Your task to perform on an android device: Open network settings Image 0: 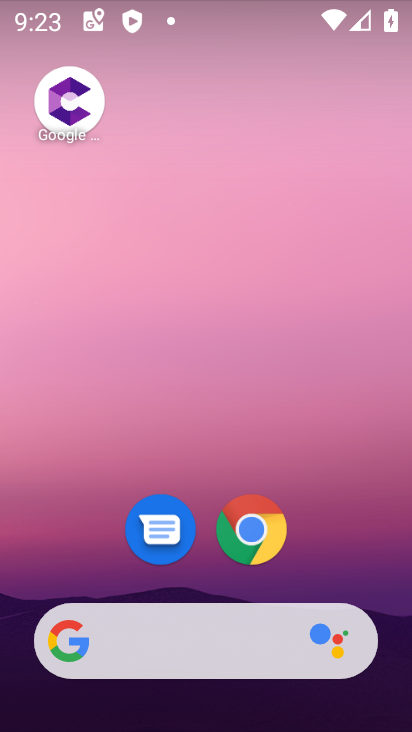
Step 0: drag from (334, 543) to (371, 50)
Your task to perform on an android device: Open network settings Image 1: 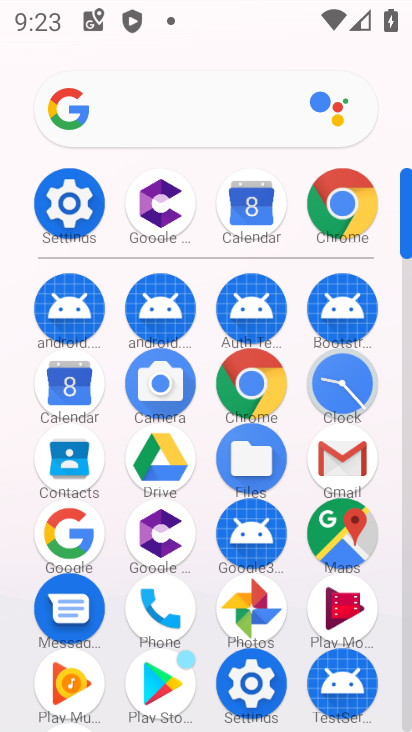
Step 1: click (64, 199)
Your task to perform on an android device: Open network settings Image 2: 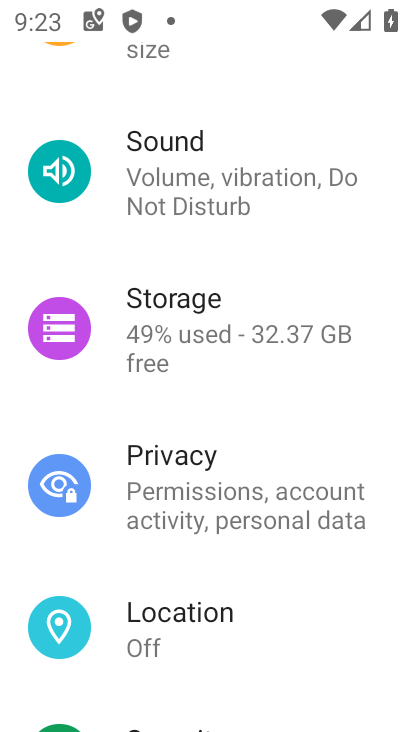
Step 2: drag from (297, 249) to (266, 660)
Your task to perform on an android device: Open network settings Image 3: 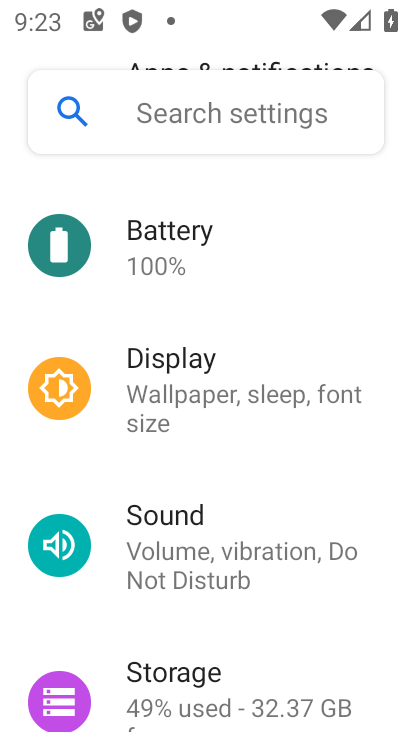
Step 3: drag from (286, 265) to (262, 590)
Your task to perform on an android device: Open network settings Image 4: 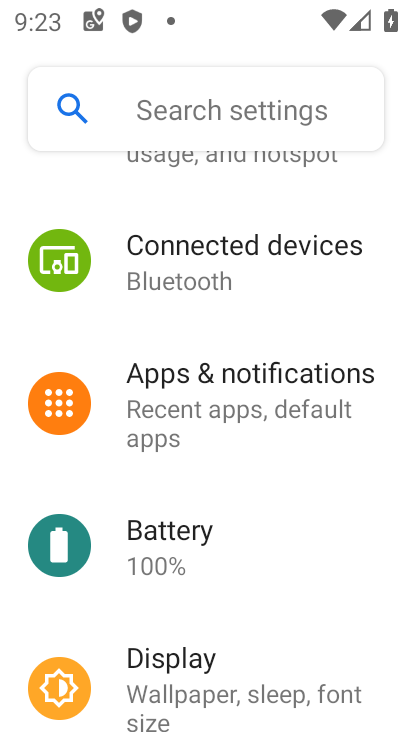
Step 4: drag from (288, 270) to (267, 638)
Your task to perform on an android device: Open network settings Image 5: 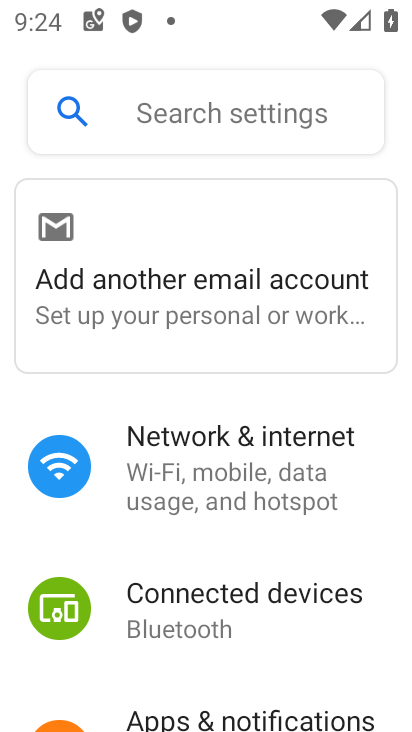
Step 5: drag from (277, 654) to (268, 386)
Your task to perform on an android device: Open network settings Image 6: 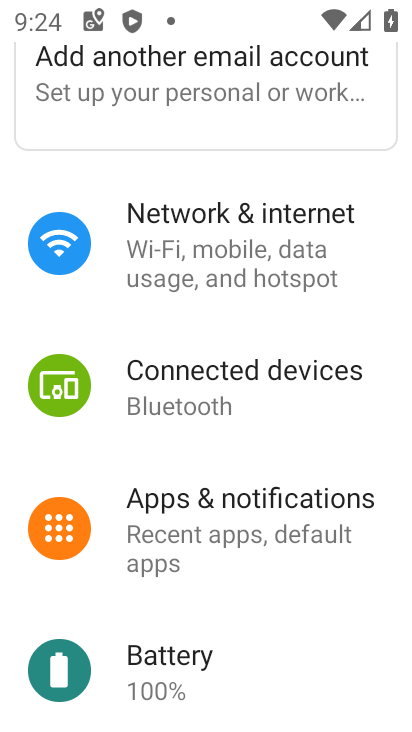
Step 6: drag from (286, 621) to (286, 330)
Your task to perform on an android device: Open network settings Image 7: 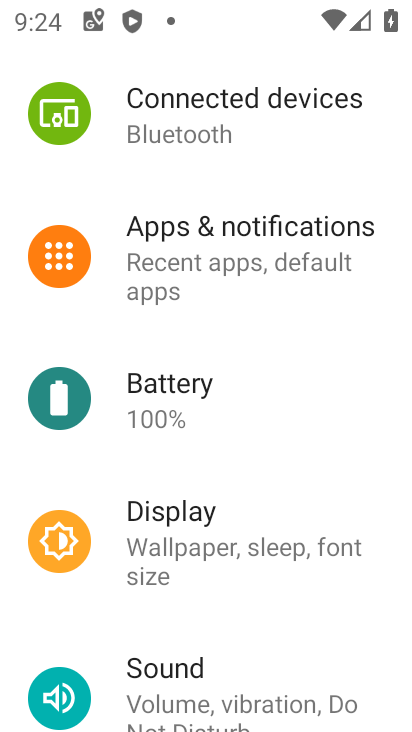
Step 7: drag from (281, 366) to (237, 643)
Your task to perform on an android device: Open network settings Image 8: 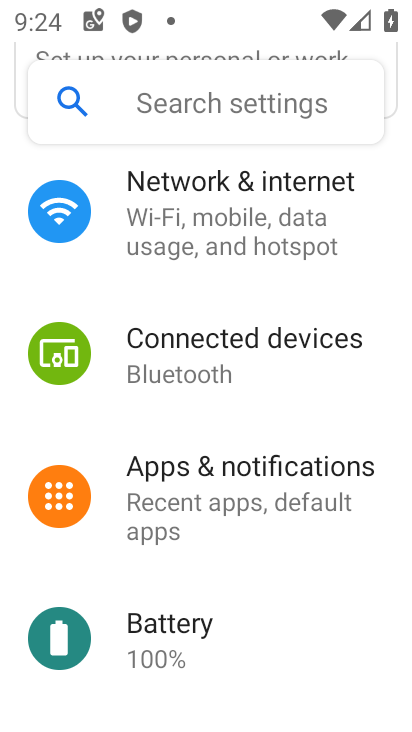
Step 8: click (237, 225)
Your task to perform on an android device: Open network settings Image 9: 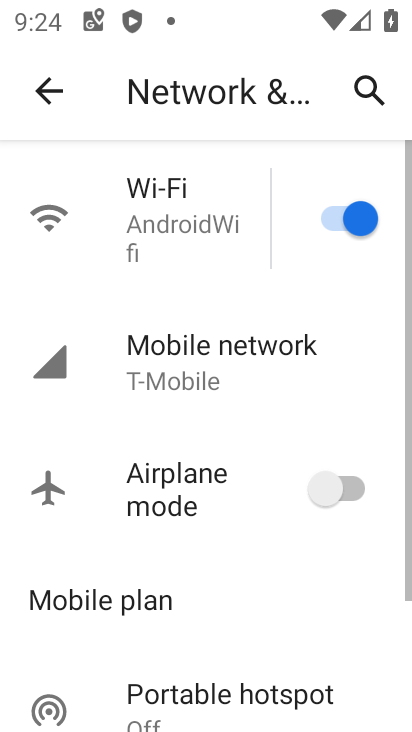
Step 9: task complete